Your task to perform on an android device: Go to ESPN.com Image 0: 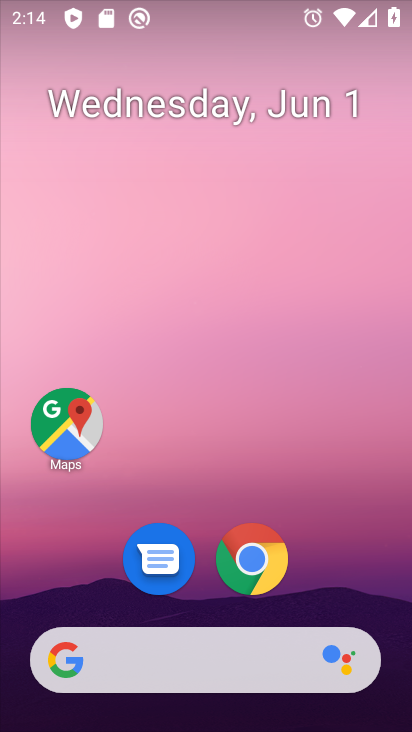
Step 0: press home button
Your task to perform on an android device: Go to ESPN.com Image 1: 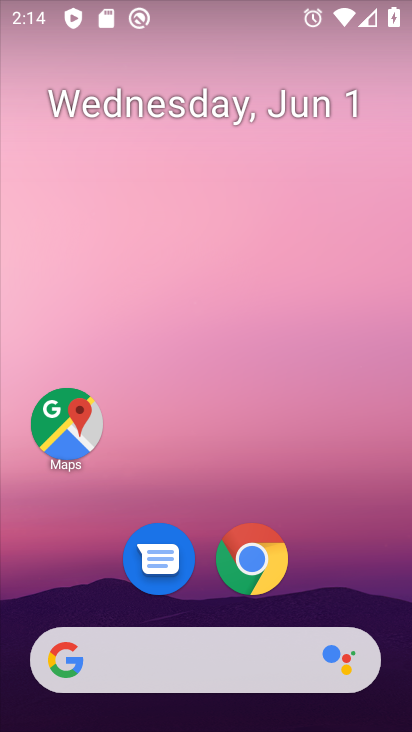
Step 1: click (70, 656)
Your task to perform on an android device: Go to ESPN.com Image 2: 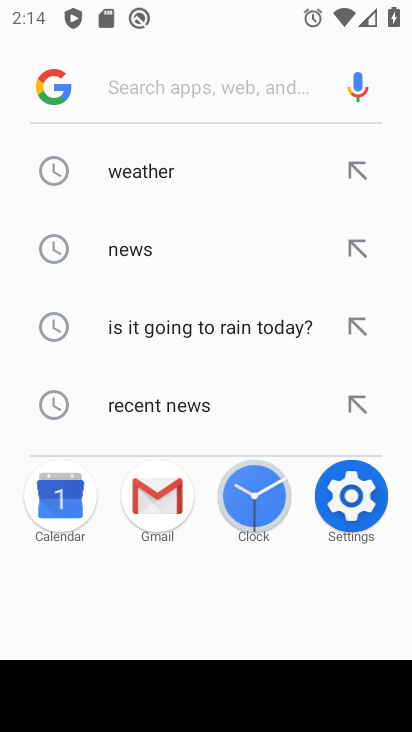
Step 2: type "ESPN.com"
Your task to perform on an android device: Go to ESPN.com Image 3: 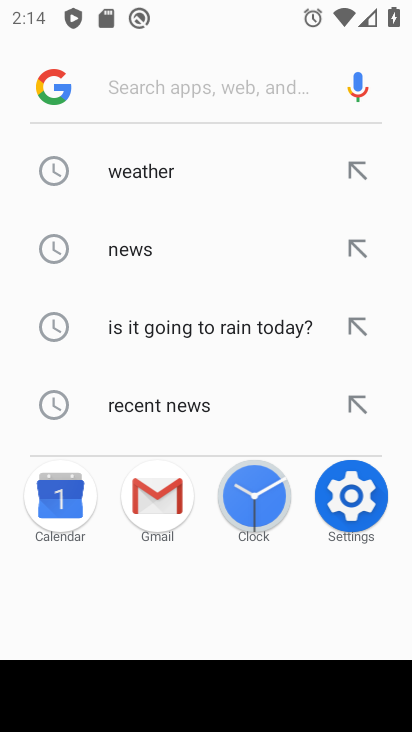
Step 3: click (151, 74)
Your task to perform on an android device: Go to ESPN.com Image 4: 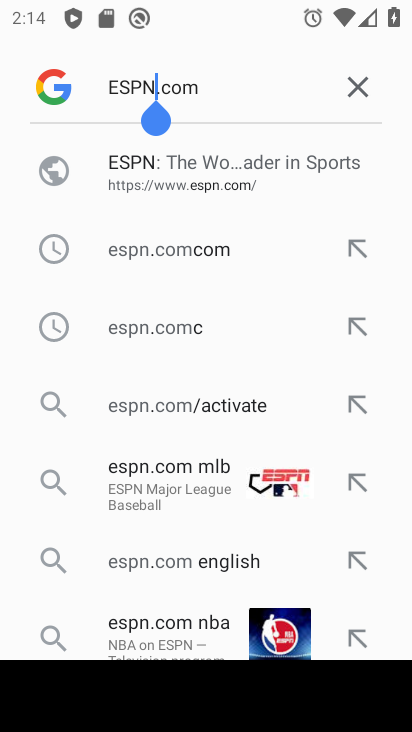
Step 4: click (150, 164)
Your task to perform on an android device: Go to ESPN.com Image 5: 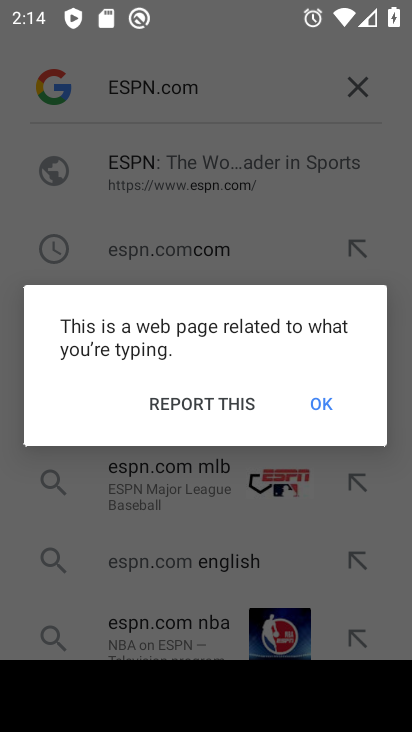
Step 5: click (322, 407)
Your task to perform on an android device: Go to ESPN.com Image 6: 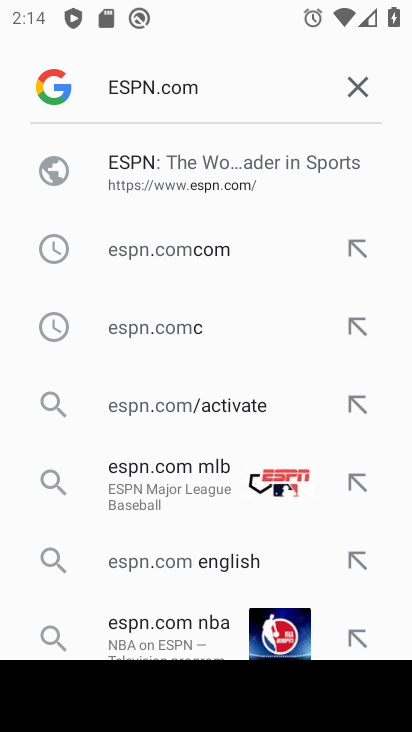
Step 6: click (131, 154)
Your task to perform on an android device: Go to ESPN.com Image 7: 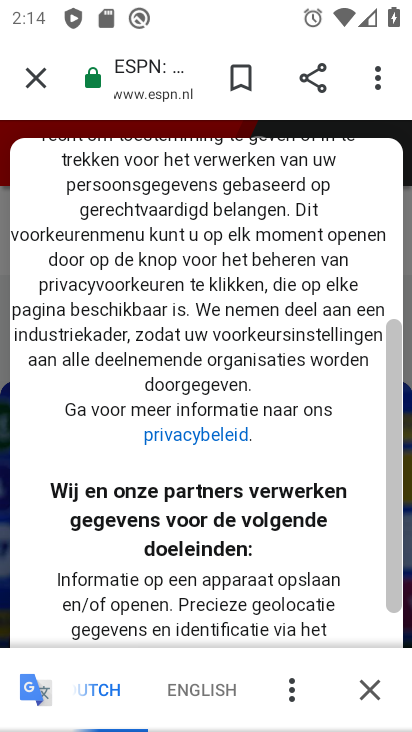
Step 7: task complete